Your task to perform on an android device: Open settings Image 0: 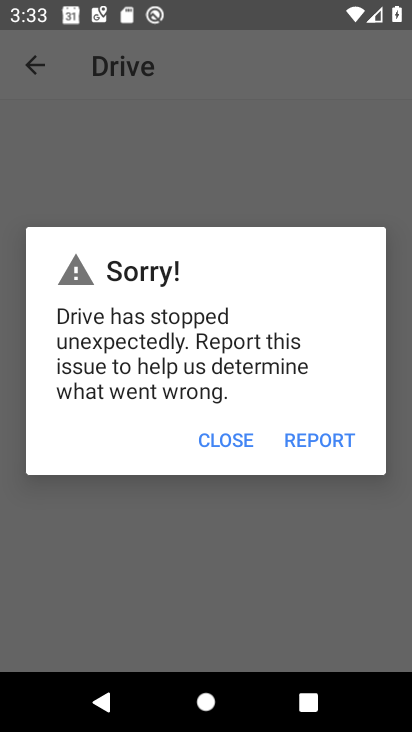
Step 0: press home button
Your task to perform on an android device: Open settings Image 1: 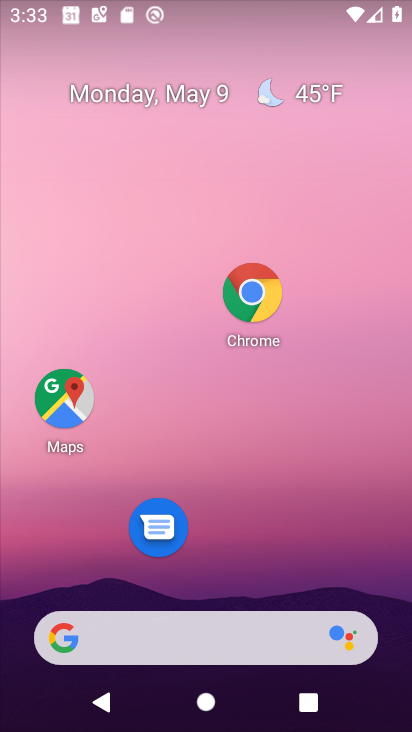
Step 1: drag from (337, 527) to (338, 97)
Your task to perform on an android device: Open settings Image 2: 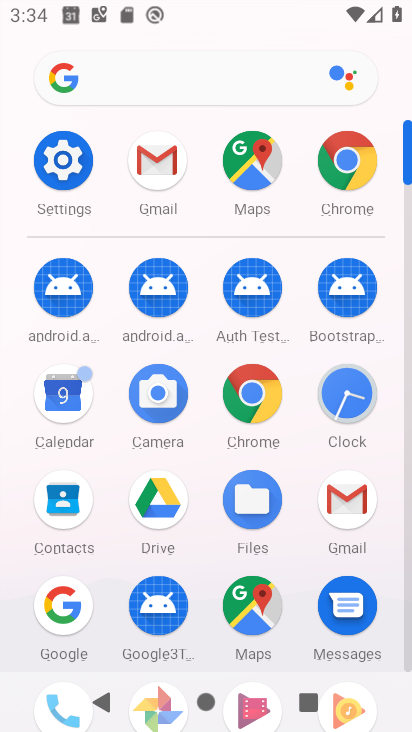
Step 2: click (79, 187)
Your task to perform on an android device: Open settings Image 3: 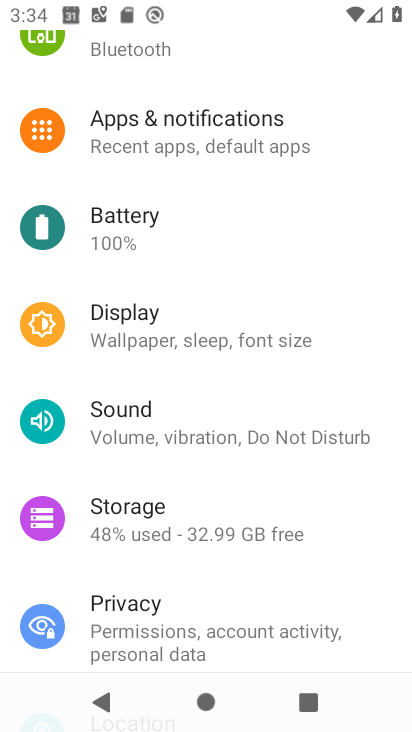
Step 3: task complete